Your task to perform on an android device: Show me popular games on the Play Store Image 0: 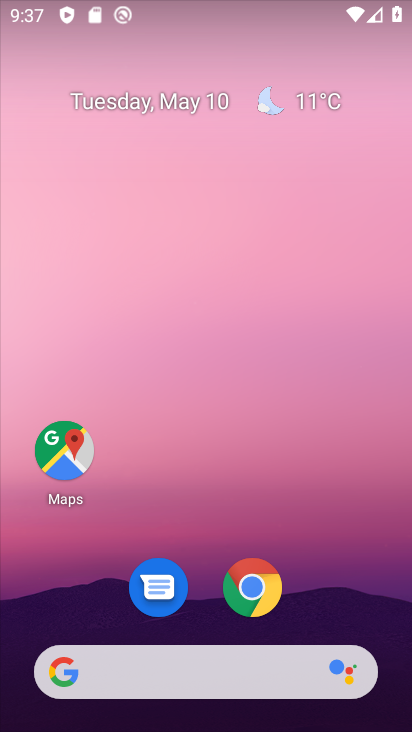
Step 0: drag from (214, 605) to (237, 283)
Your task to perform on an android device: Show me popular games on the Play Store Image 1: 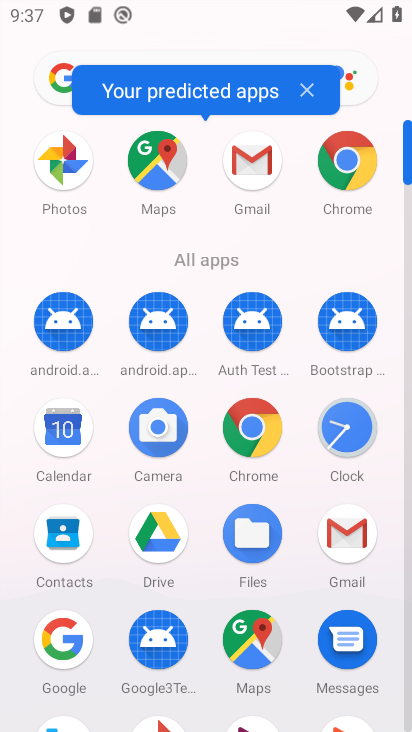
Step 1: drag from (214, 594) to (244, 296)
Your task to perform on an android device: Show me popular games on the Play Store Image 2: 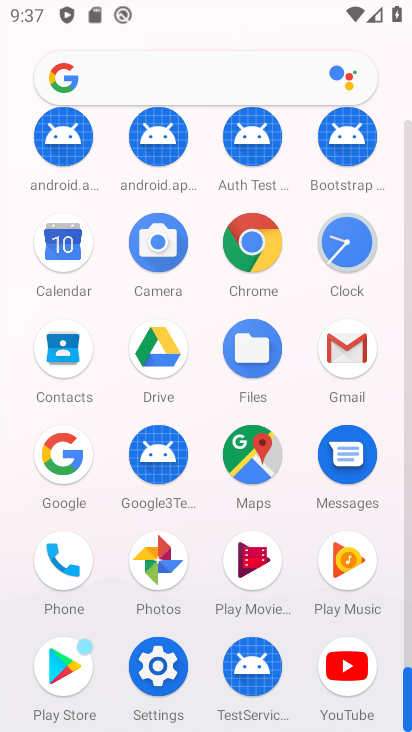
Step 2: click (44, 668)
Your task to perform on an android device: Show me popular games on the Play Store Image 3: 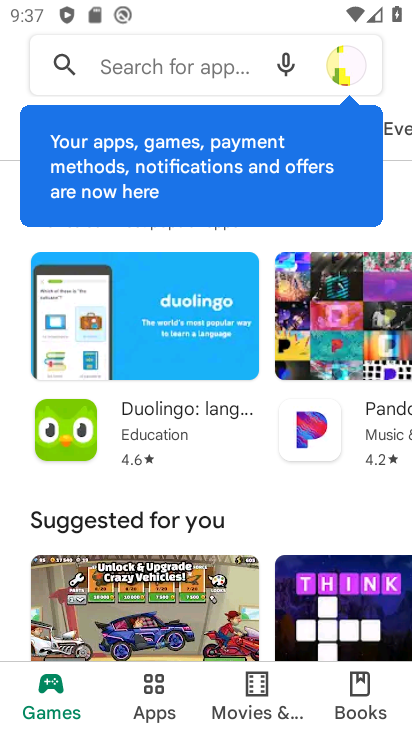
Step 3: drag from (399, 127) to (323, 136)
Your task to perform on an android device: Show me popular games on the Play Store Image 4: 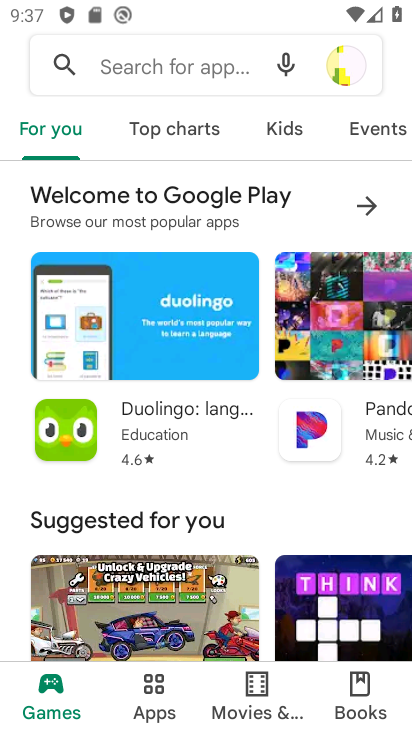
Step 4: click (211, 128)
Your task to perform on an android device: Show me popular games on the Play Store Image 5: 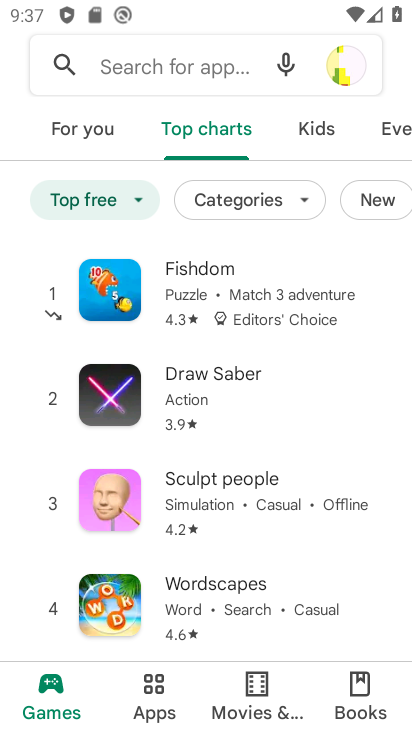
Step 5: task complete